Your task to perform on an android device: move an email to a new category in the gmail app Image 0: 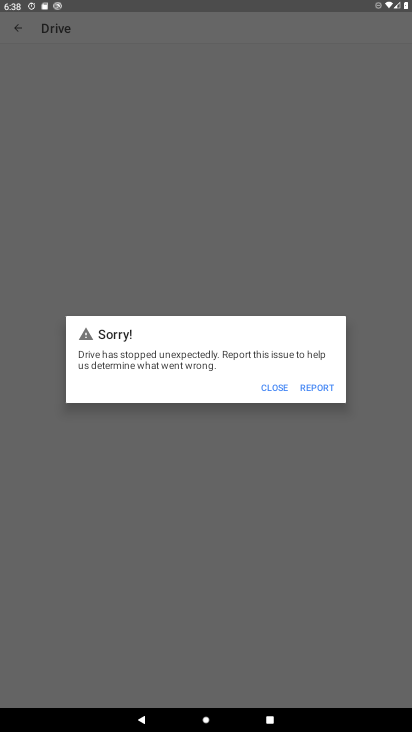
Step 0: press home button
Your task to perform on an android device: move an email to a new category in the gmail app Image 1: 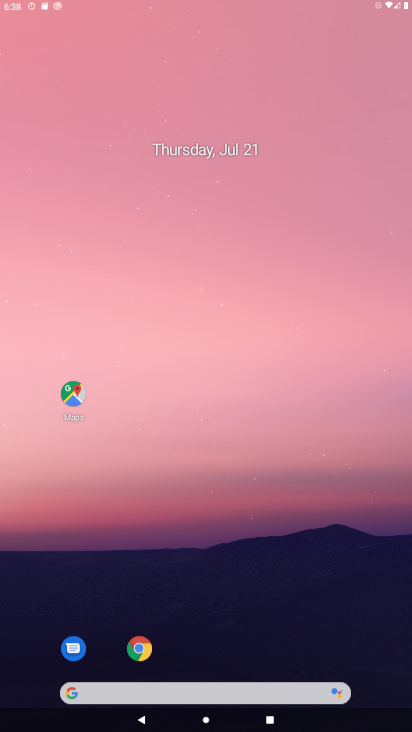
Step 1: drag from (397, 674) to (179, 6)
Your task to perform on an android device: move an email to a new category in the gmail app Image 2: 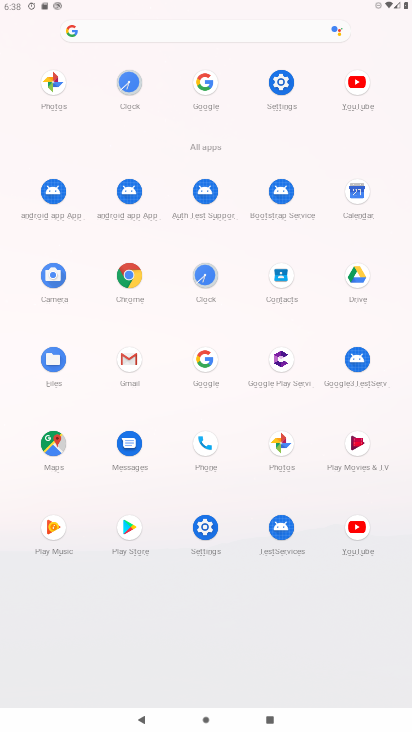
Step 2: click (129, 365)
Your task to perform on an android device: move an email to a new category in the gmail app Image 3: 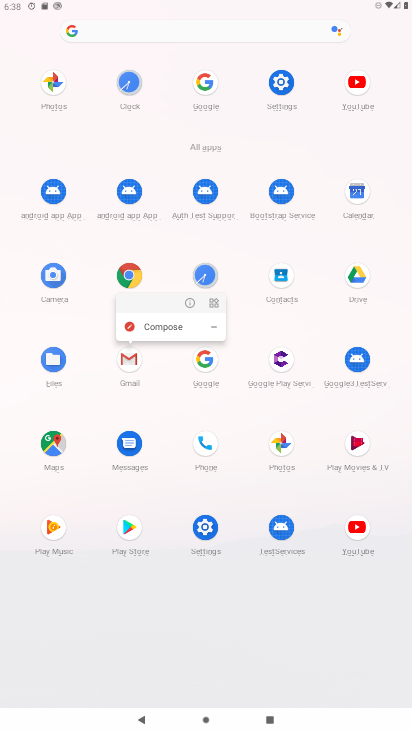
Step 3: click (129, 365)
Your task to perform on an android device: move an email to a new category in the gmail app Image 4: 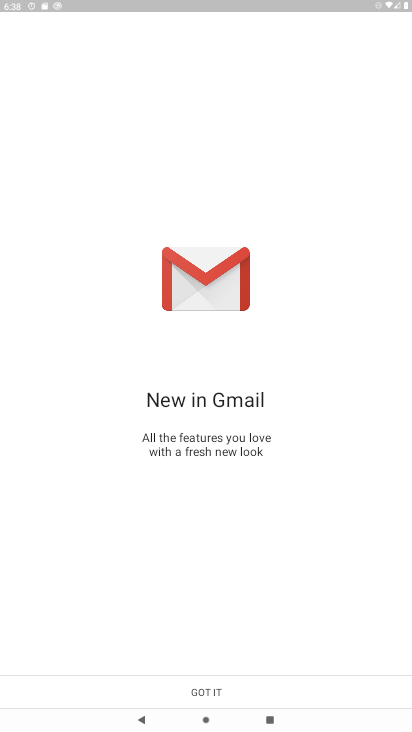
Step 4: click (205, 686)
Your task to perform on an android device: move an email to a new category in the gmail app Image 5: 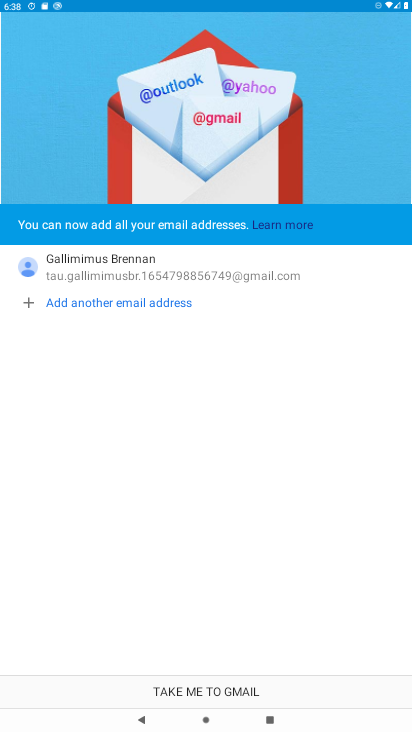
Step 5: click (206, 686)
Your task to perform on an android device: move an email to a new category in the gmail app Image 6: 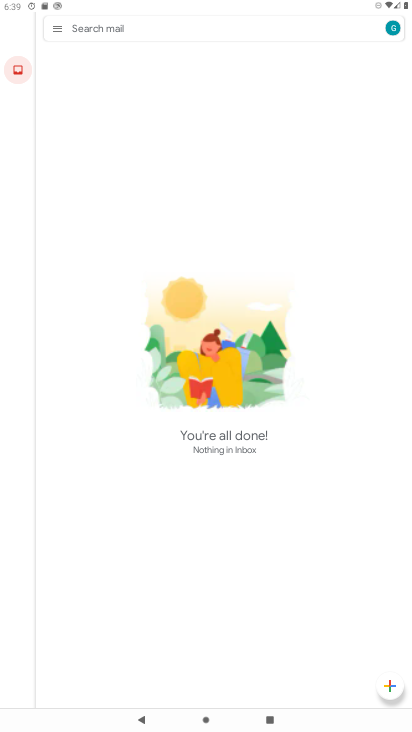
Step 6: task complete